Your task to perform on an android device: Go to Maps Image 0: 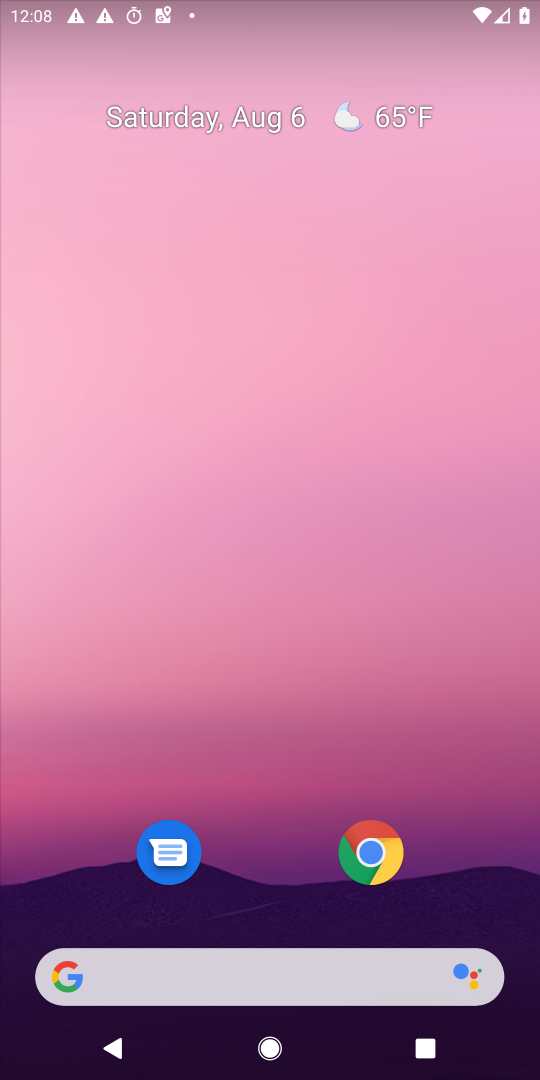
Step 0: press home button
Your task to perform on an android device: Go to Maps Image 1: 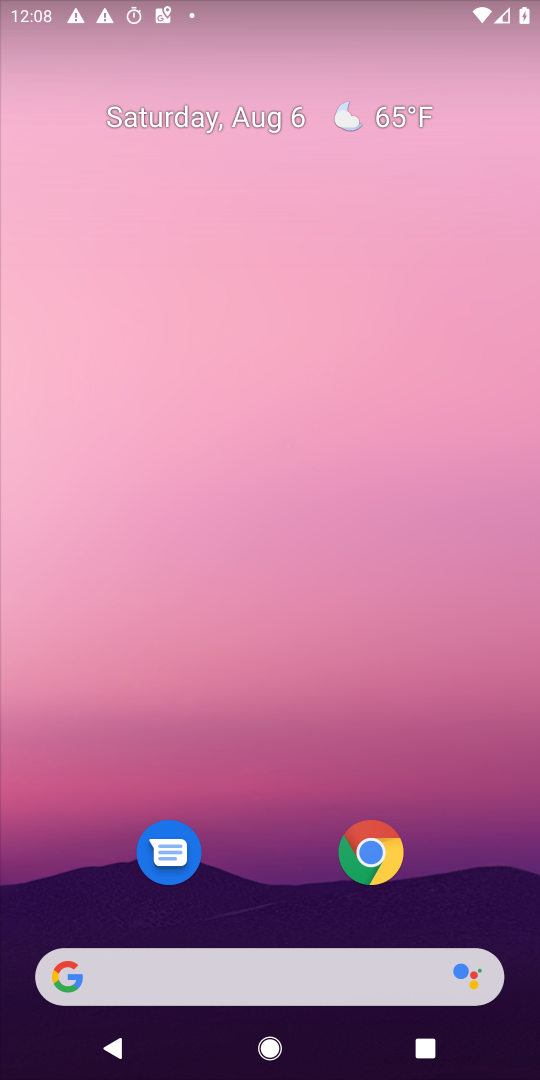
Step 1: drag from (303, 998) to (317, 249)
Your task to perform on an android device: Go to Maps Image 2: 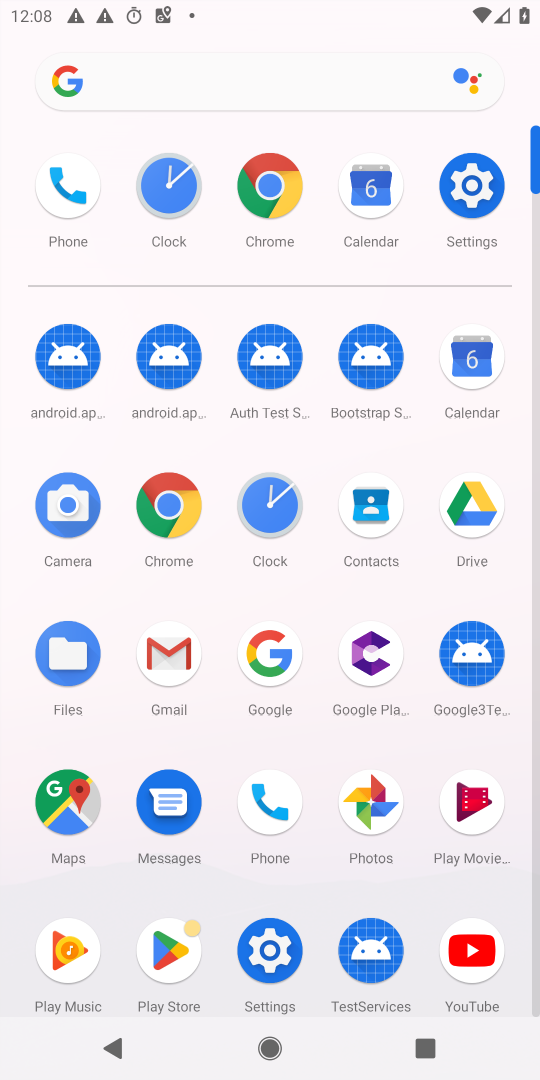
Step 2: click (64, 799)
Your task to perform on an android device: Go to Maps Image 3: 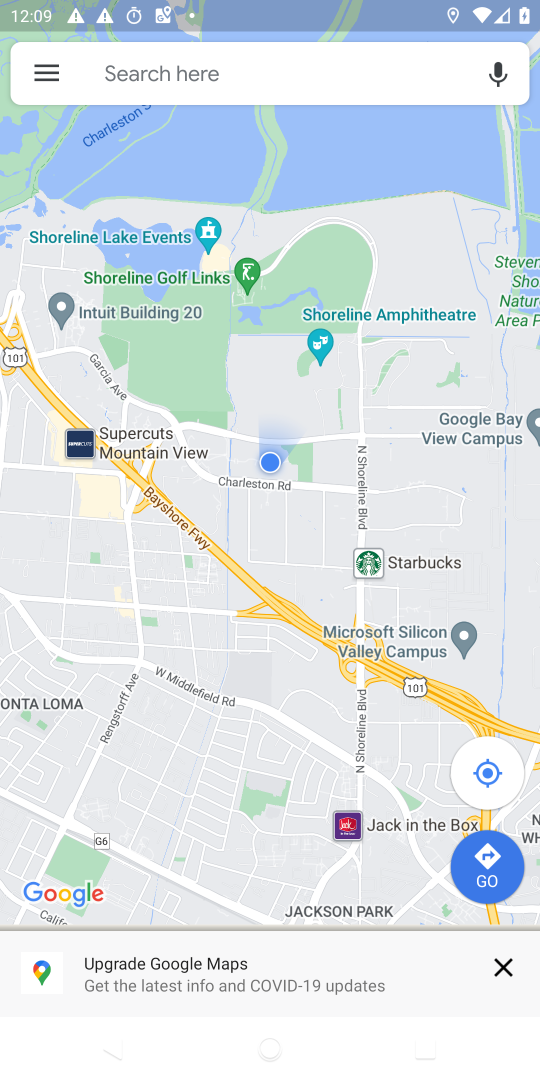
Step 3: click (500, 965)
Your task to perform on an android device: Go to Maps Image 4: 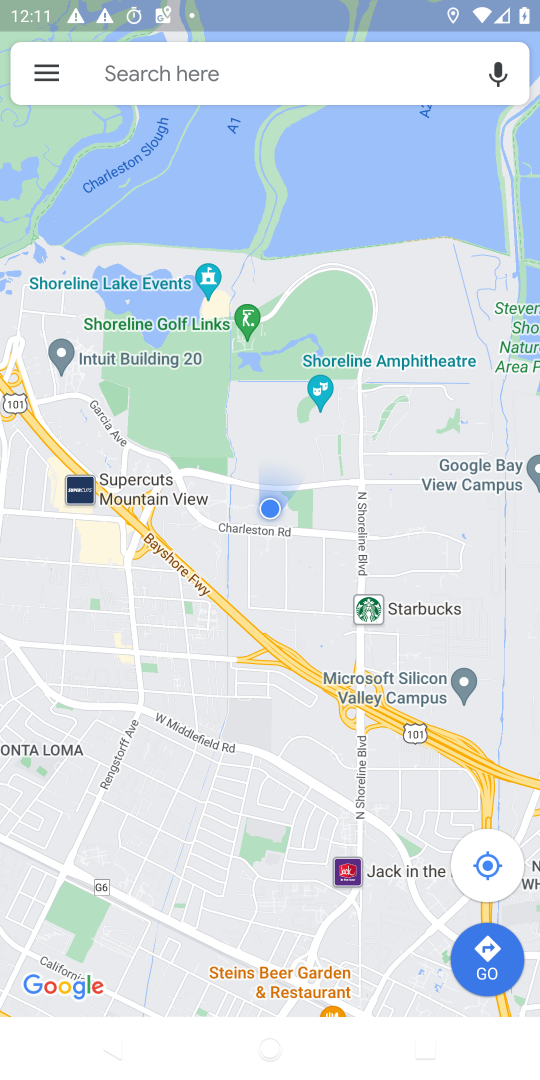
Step 4: task complete